Your task to perform on an android device: open a bookmark in the chrome app Image 0: 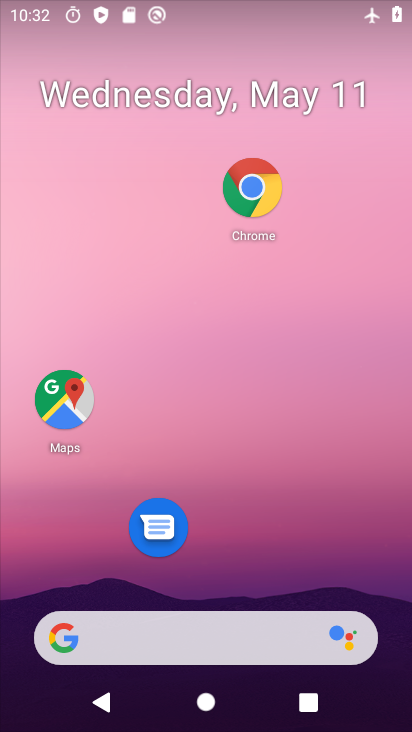
Step 0: drag from (242, 497) to (274, 295)
Your task to perform on an android device: open a bookmark in the chrome app Image 1: 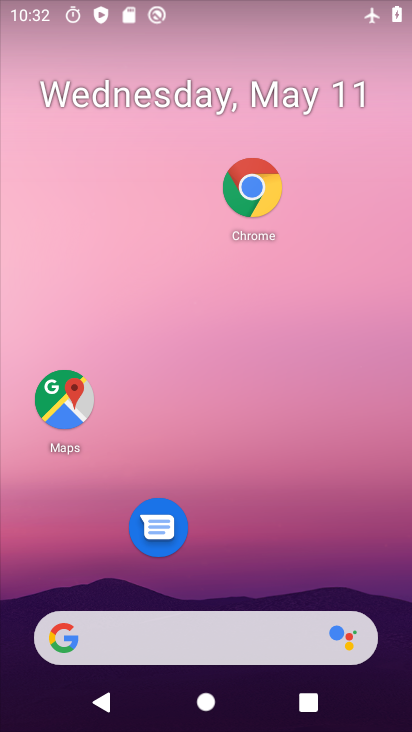
Step 1: drag from (295, 549) to (324, 99)
Your task to perform on an android device: open a bookmark in the chrome app Image 2: 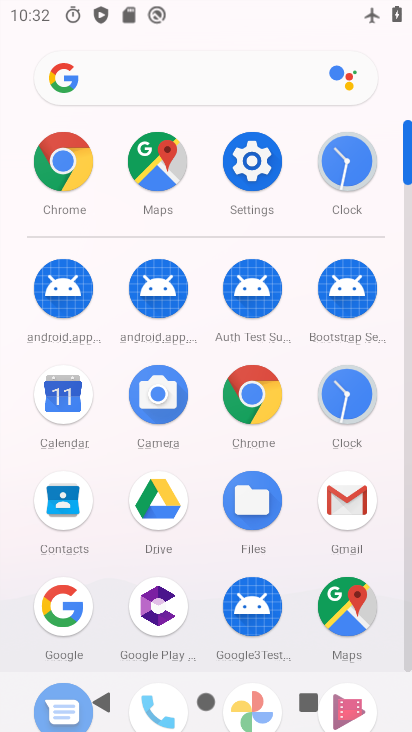
Step 2: click (248, 405)
Your task to perform on an android device: open a bookmark in the chrome app Image 3: 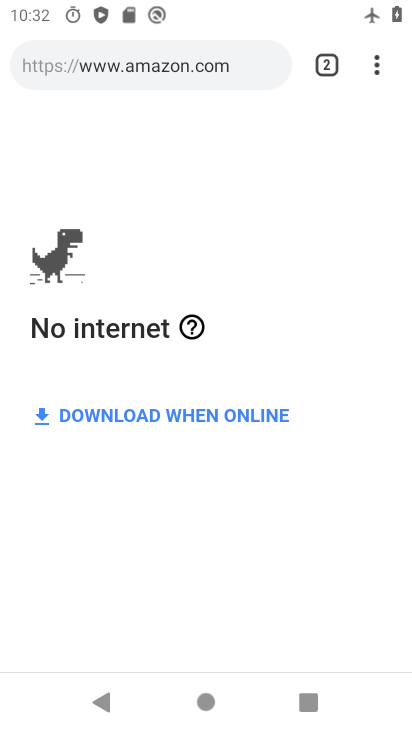
Step 3: click (375, 68)
Your task to perform on an android device: open a bookmark in the chrome app Image 4: 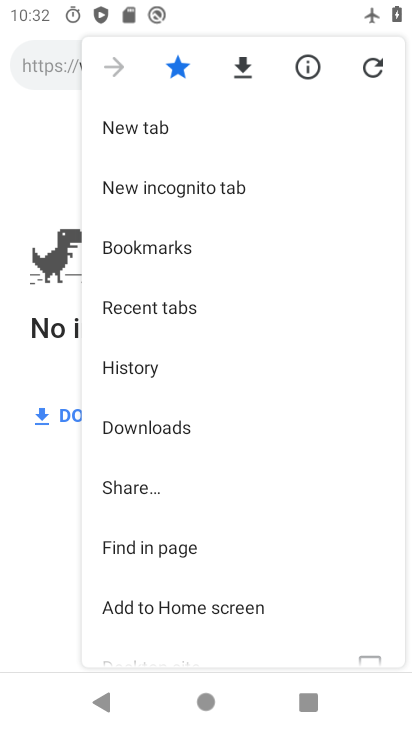
Step 4: click (214, 239)
Your task to perform on an android device: open a bookmark in the chrome app Image 5: 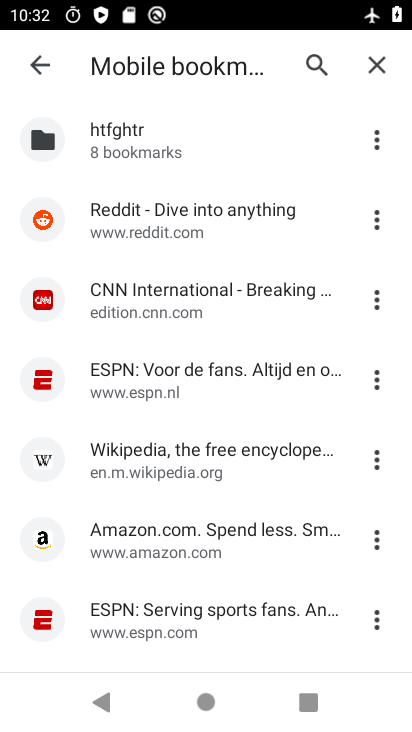
Step 5: click (214, 239)
Your task to perform on an android device: open a bookmark in the chrome app Image 6: 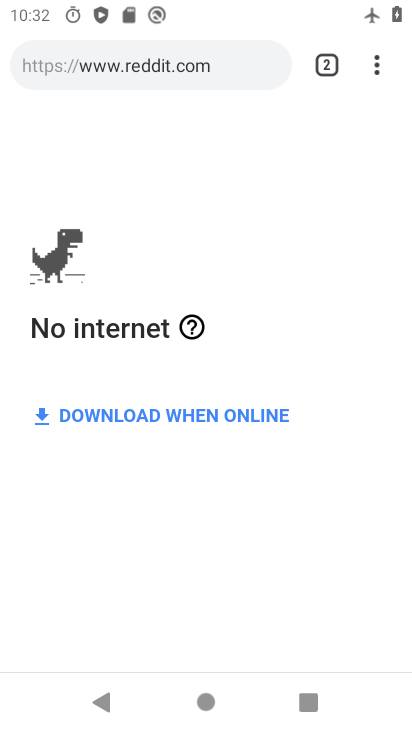
Step 6: task complete